Your task to perform on an android device: Add "logitech g pro" to the cart on newegg Image 0: 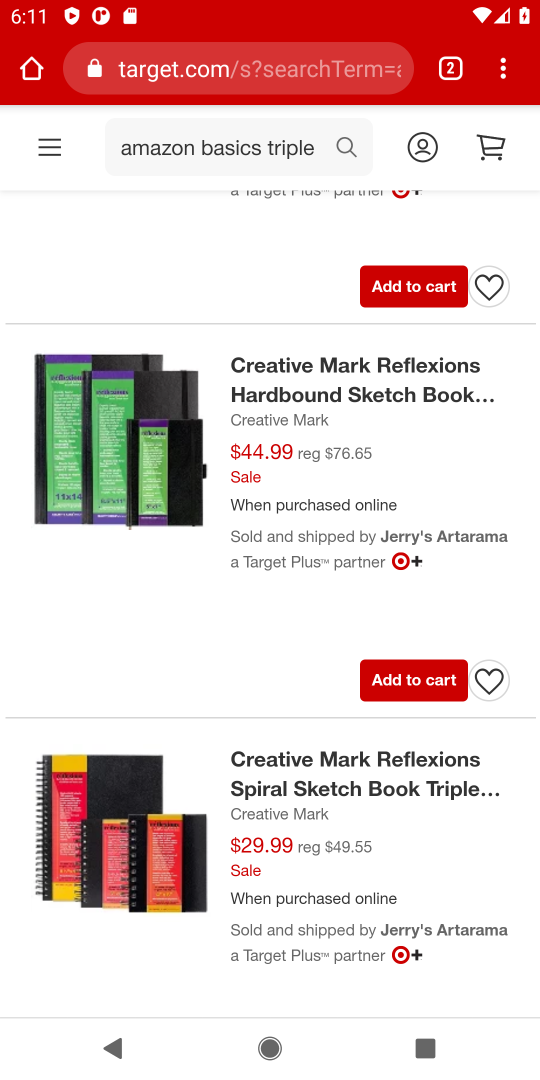
Step 0: click (361, 863)
Your task to perform on an android device: Add "logitech g pro" to the cart on newegg Image 1: 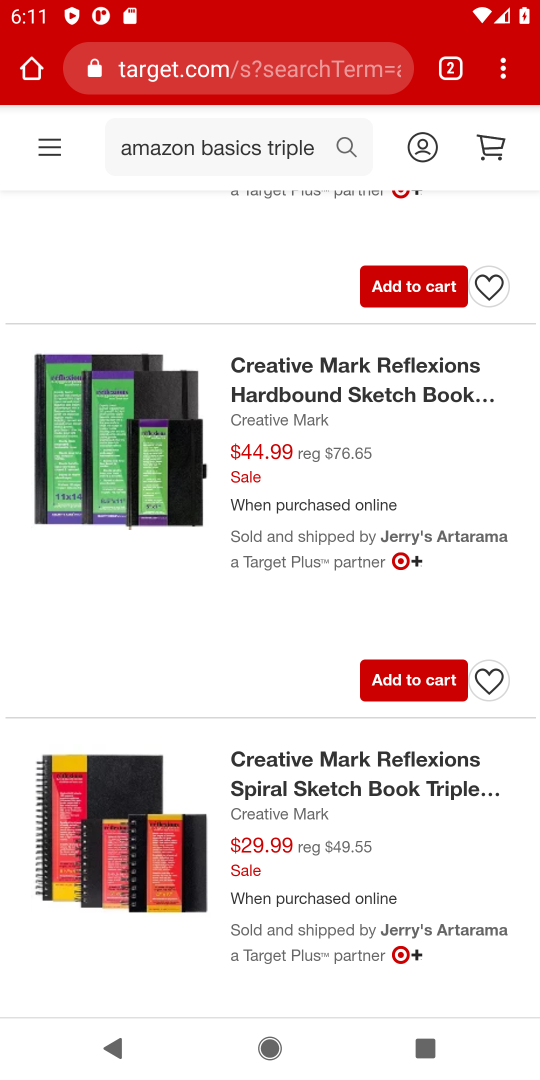
Step 1: click (456, 71)
Your task to perform on an android device: Add "logitech g pro" to the cart on newegg Image 2: 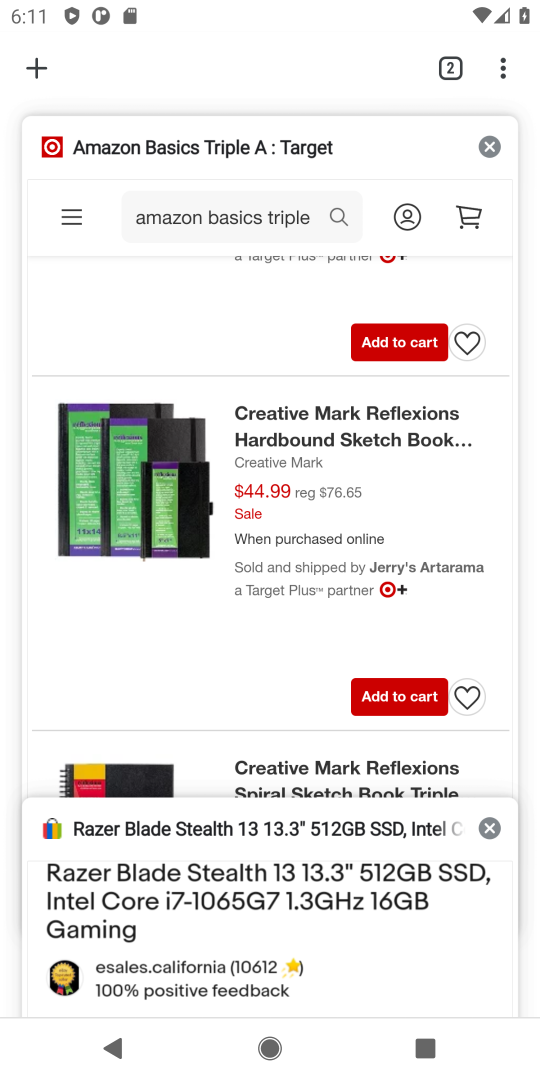
Step 2: click (24, 72)
Your task to perform on an android device: Add "logitech g pro" to the cart on newegg Image 3: 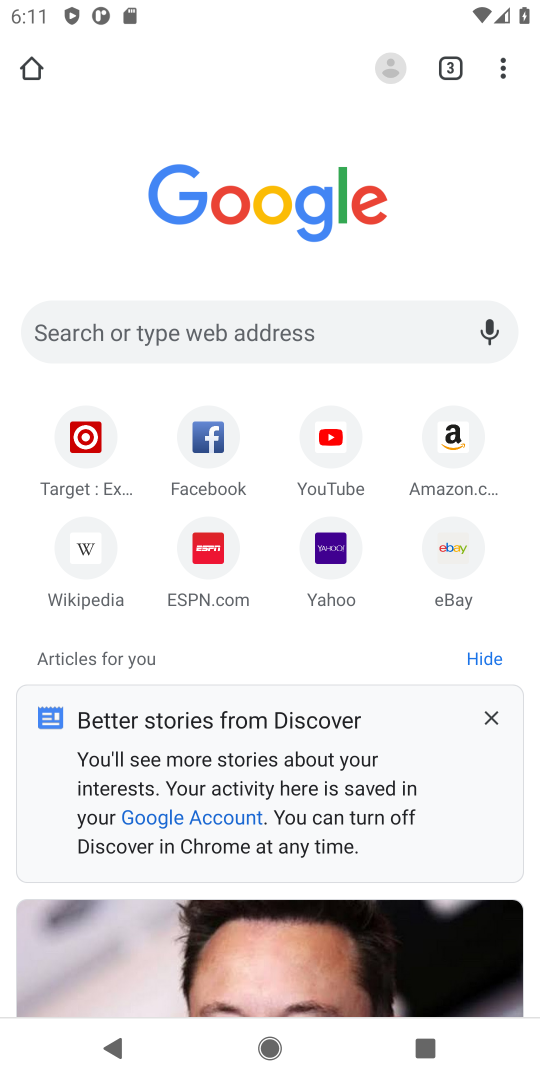
Step 3: click (250, 317)
Your task to perform on an android device: Add "logitech g pro" to the cart on newegg Image 4: 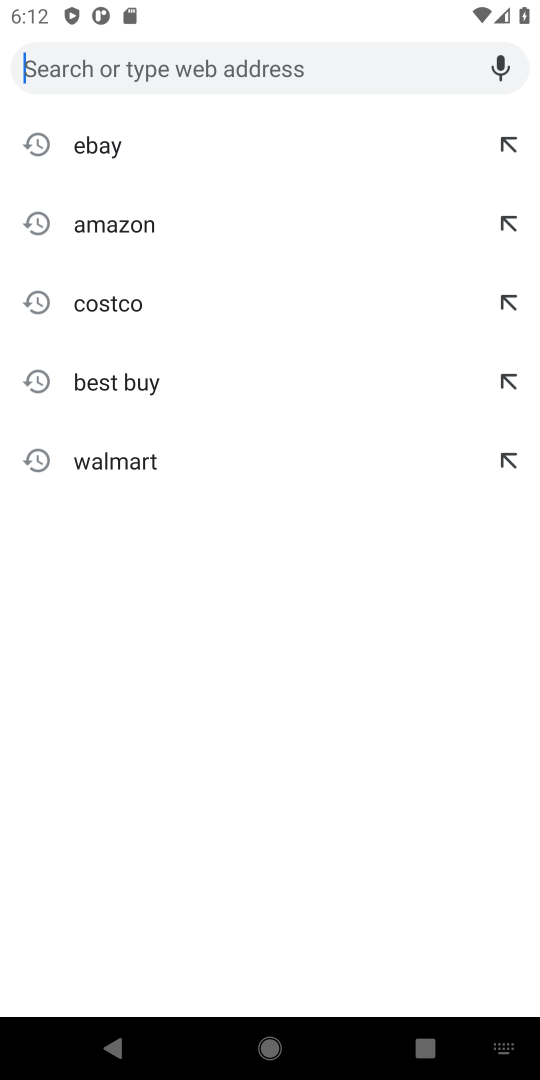
Step 4: type "newegg"
Your task to perform on an android device: Add "logitech g pro" to the cart on newegg Image 5: 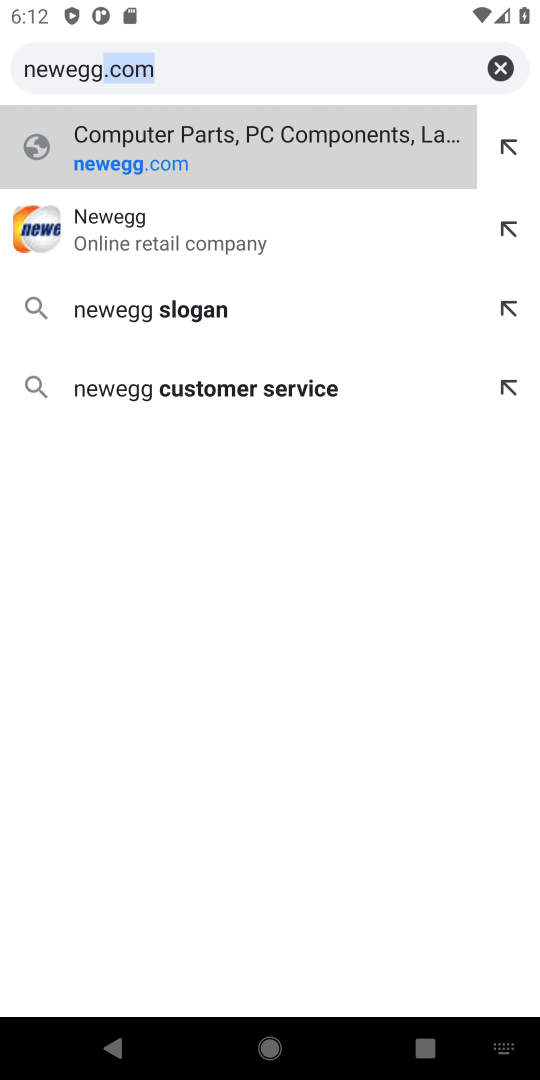
Step 5: click (261, 160)
Your task to perform on an android device: Add "logitech g pro" to the cart on newegg Image 6: 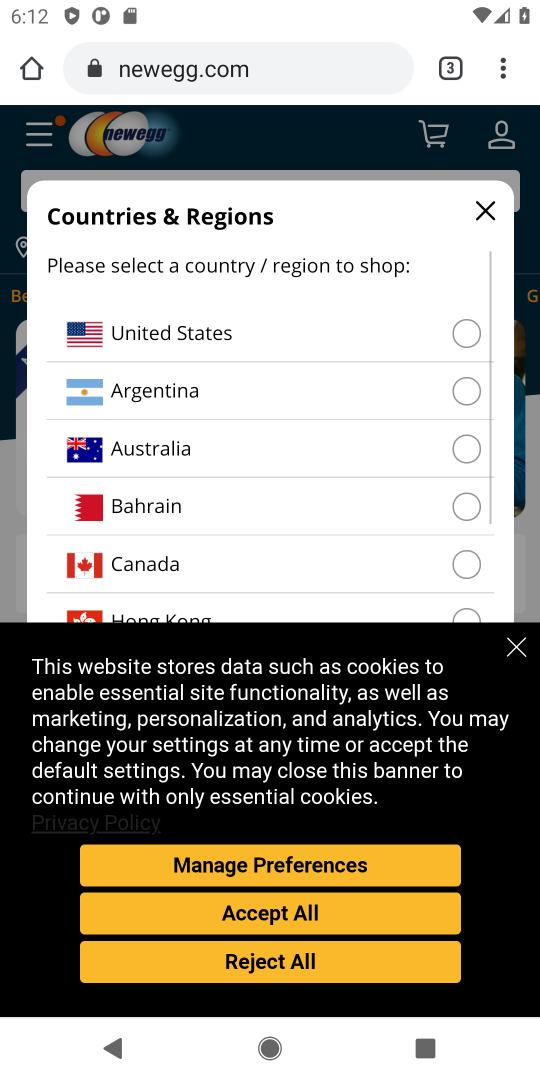
Step 6: click (274, 971)
Your task to perform on an android device: Add "logitech g pro" to the cart on newegg Image 7: 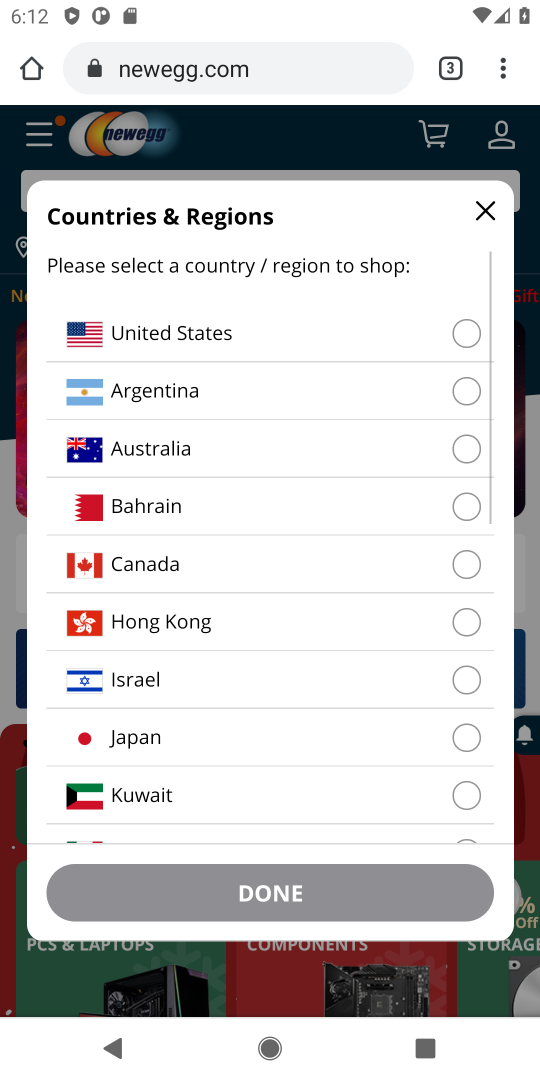
Step 7: click (468, 337)
Your task to perform on an android device: Add "logitech g pro" to the cart on newegg Image 8: 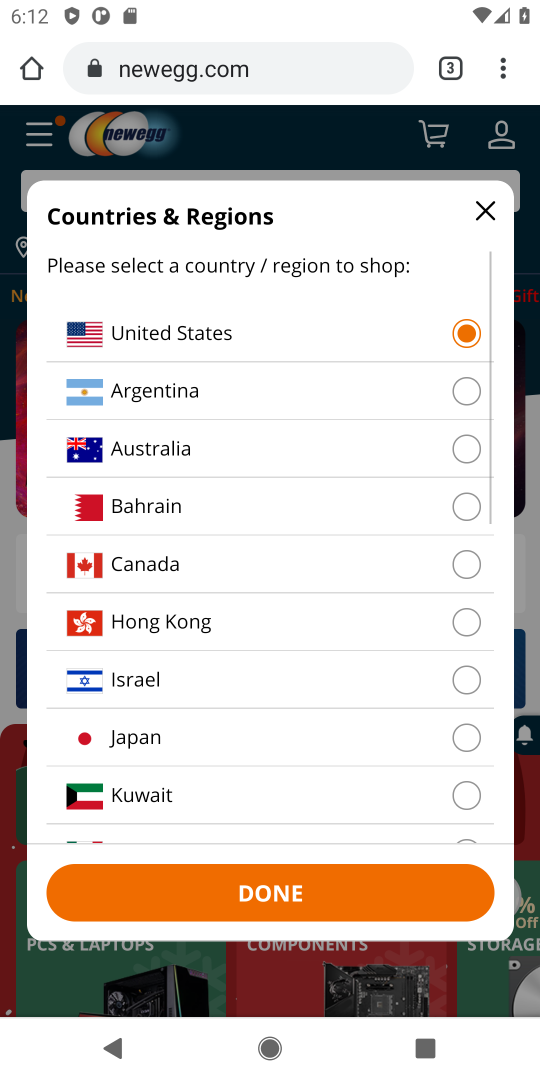
Step 8: click (276, 883)
Your task to perform on an android device: Add "logitech g pro" to the cart on newegg Image 9: 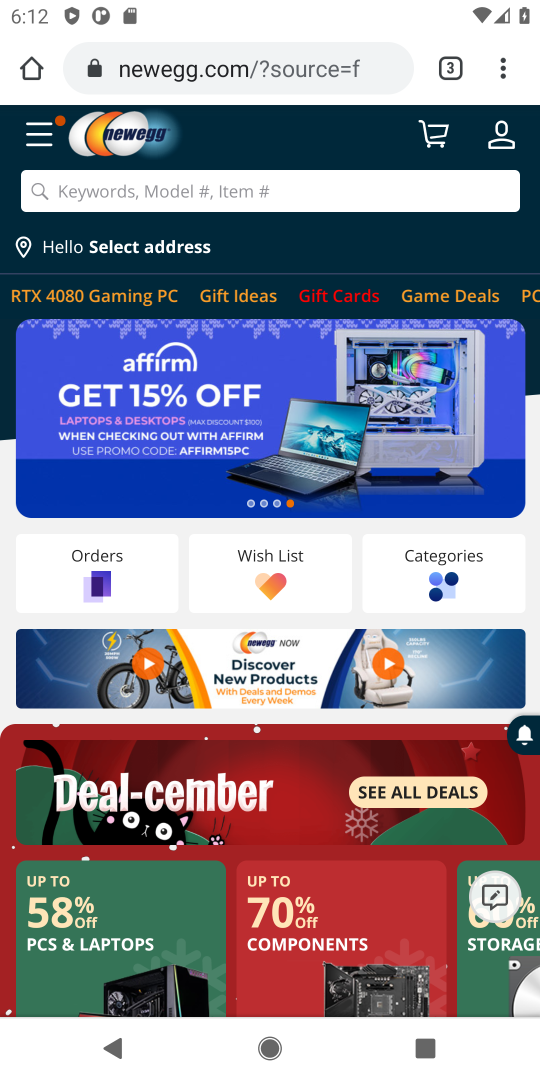
Step 9: click (232, 188)
Your task to perform on an android device: Add "logitech g pro" to the cart on newegg Image 10: 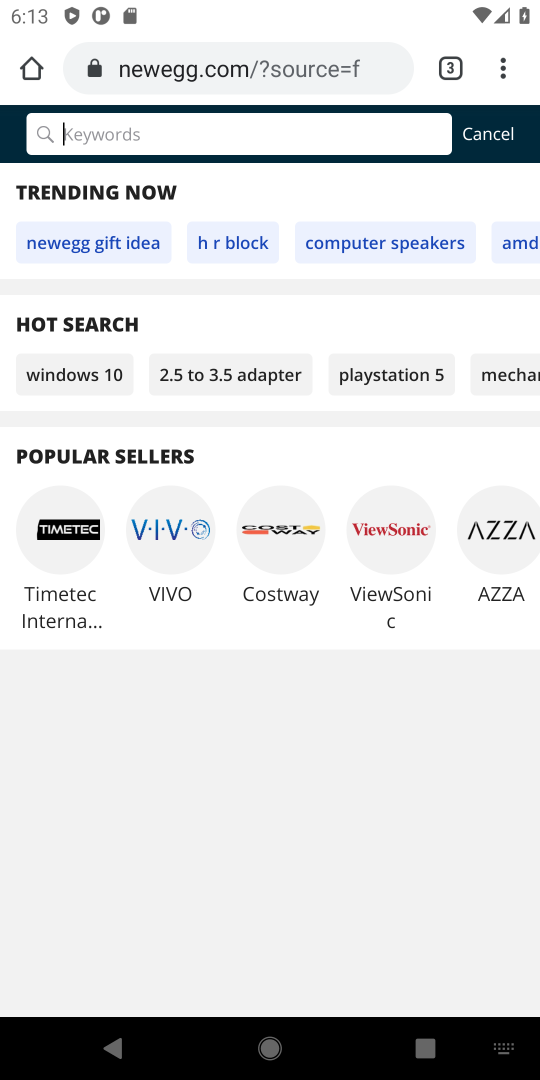
Step 10: type "logitech g pro"
Your task to perform on an android device: Add "logitech g pro" to the cart on newegg Image 11: 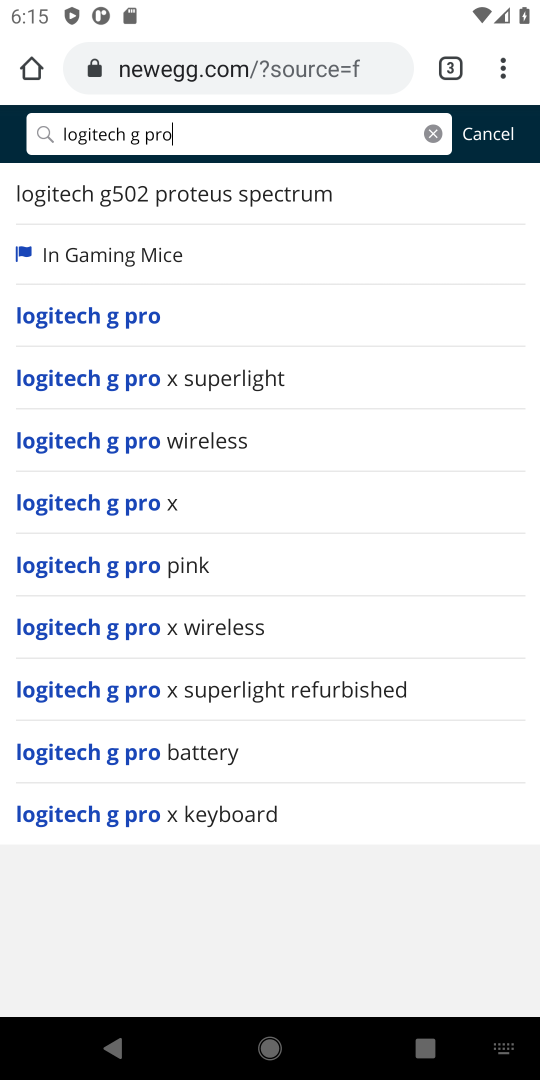
Step 11: click (131, 311)
Your task to perform on an android device: Add "logitech g pro" to the cart on newegg Image 12: 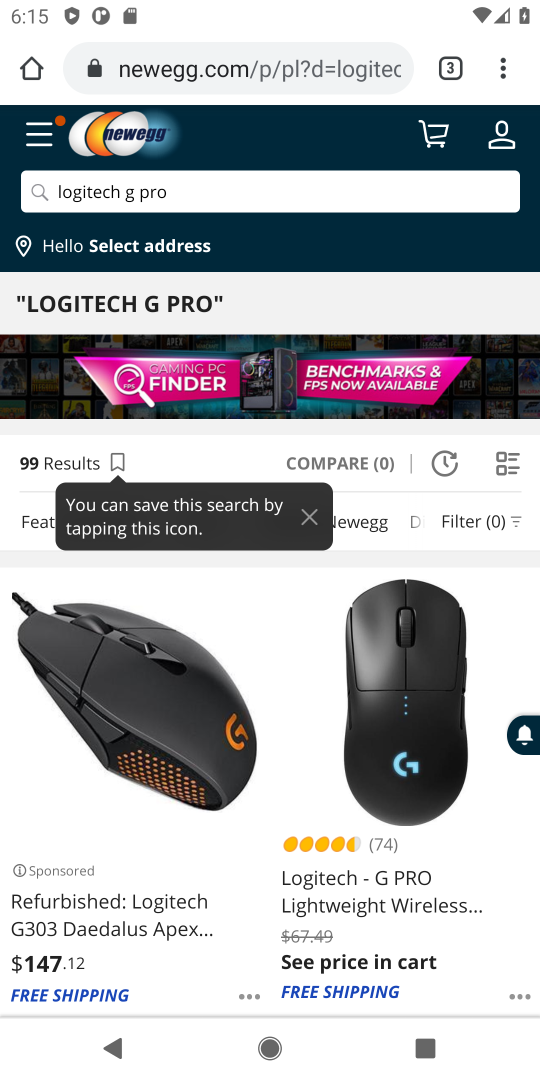
Step 12: click (412, 885)
Your task to perform on an android device: Add "logitech g pro" to the cart on newegg Image 13: 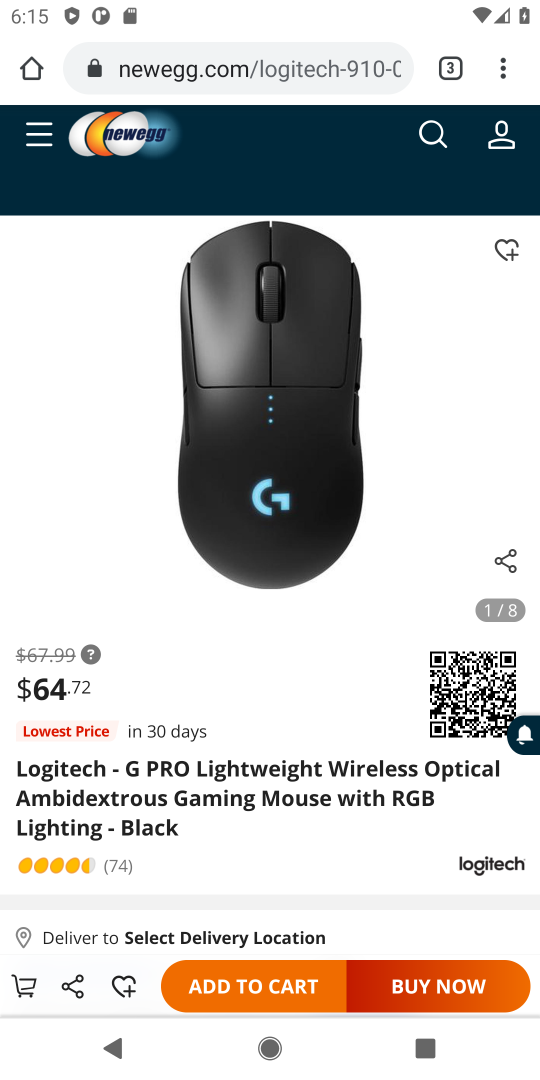
Step 13: click (232, 991)
Your task to perform on an android device: Add "logitech g pro" to the cart on newegg Image 14: 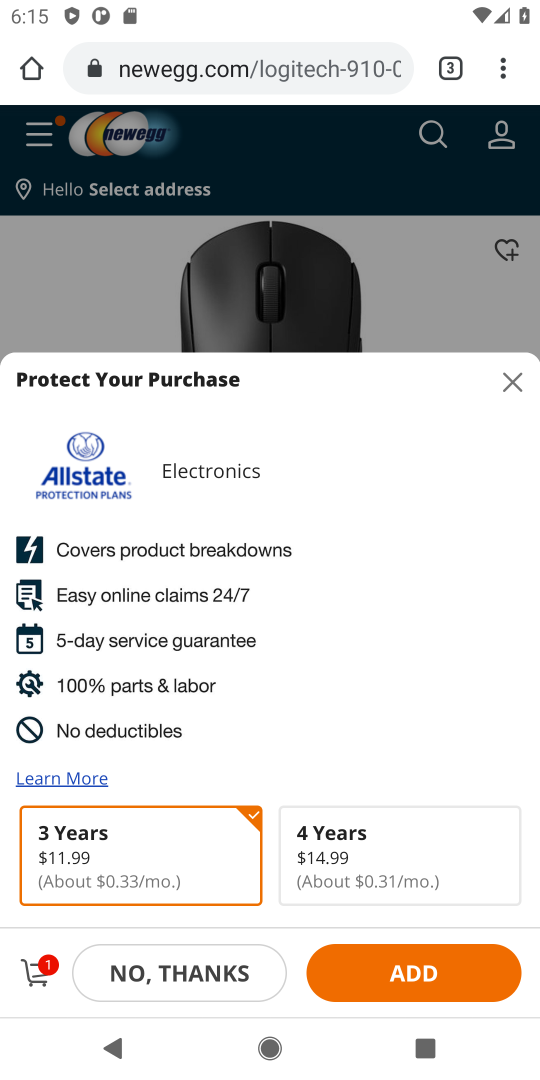
Step 14: task complete